Your task to perform on an android device: What's the news in Nepal? Image 0: 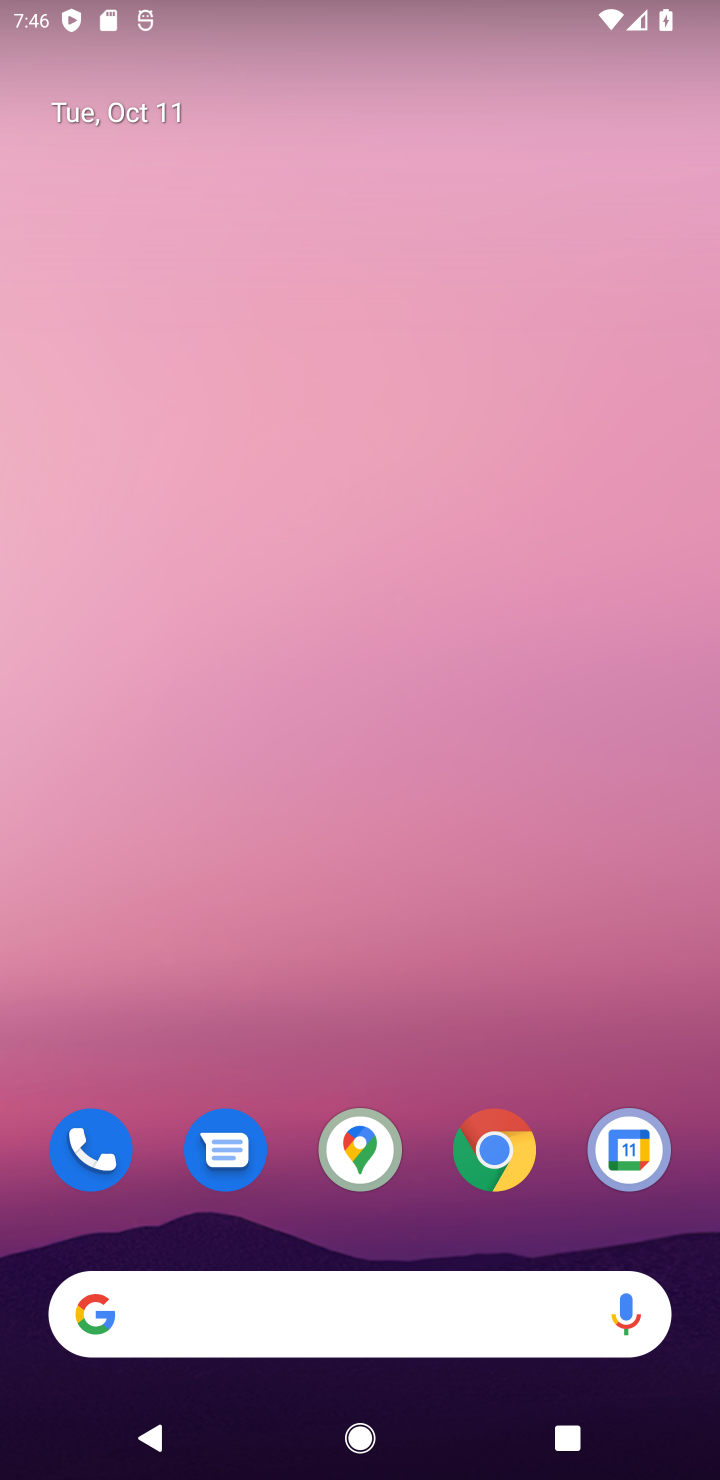
Step 0: click (484, 1165)
Your task to perform on an android device: What's the news in Nepal? Image 1: 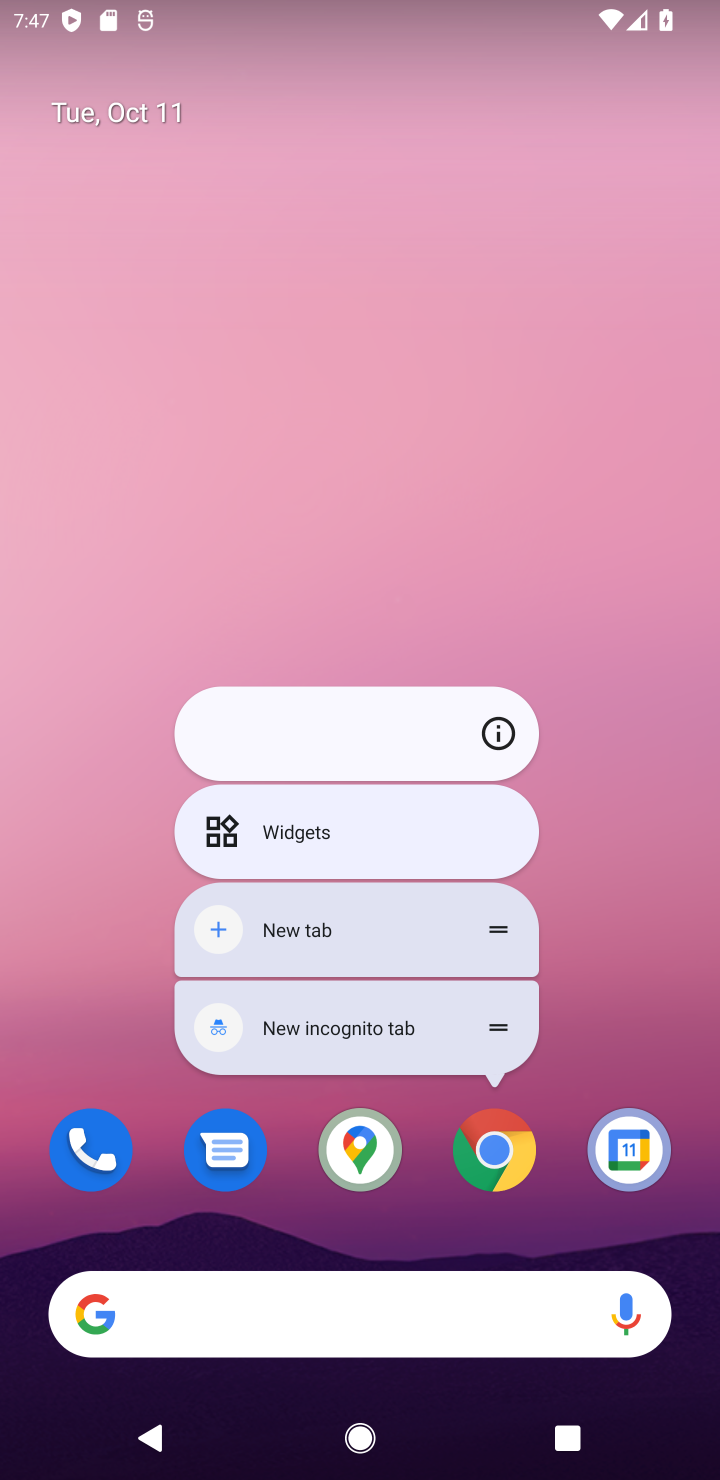
Step 1: click (495, 1149)
Your task to perform on an android device: What's the news in Nepal? Image 2: 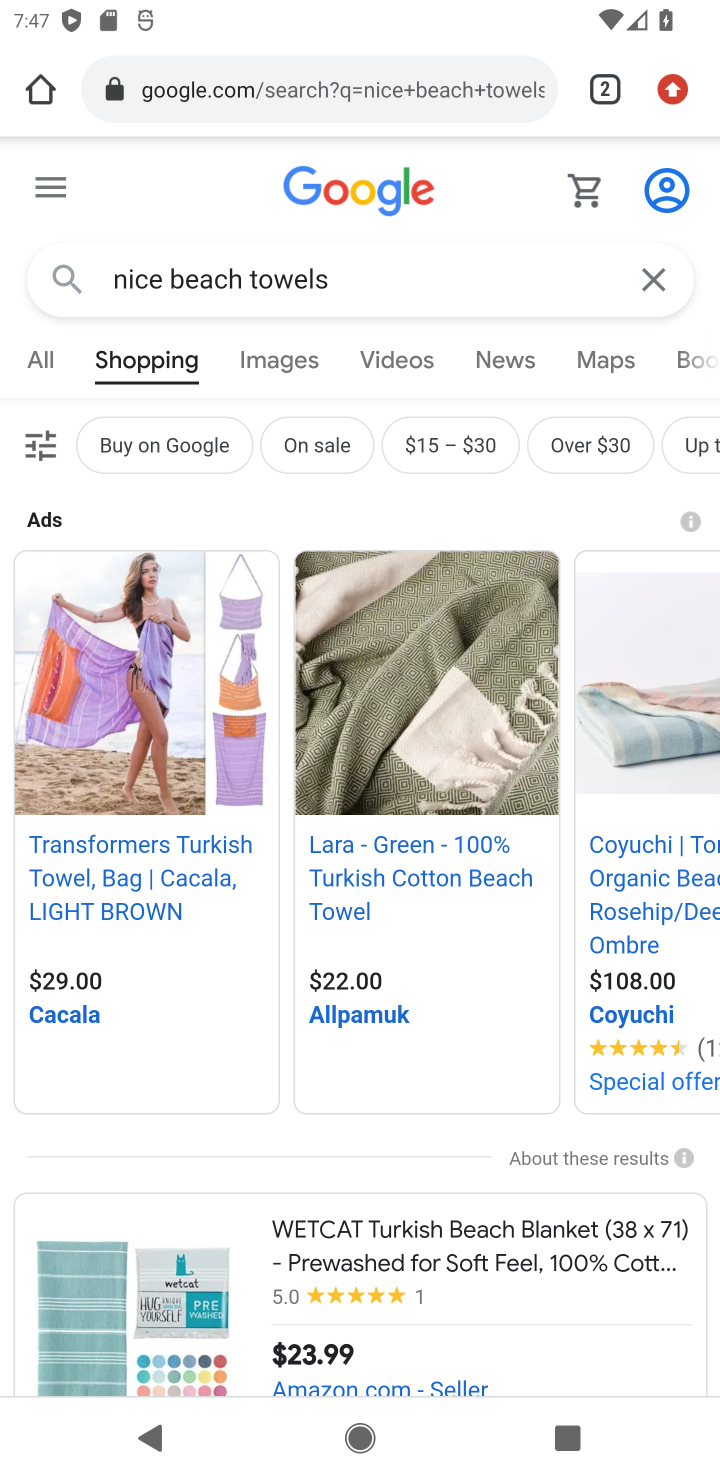
Step 2: click (233, 96)
Your task to perform on an android device: What's the news in Nepal? Image 3: 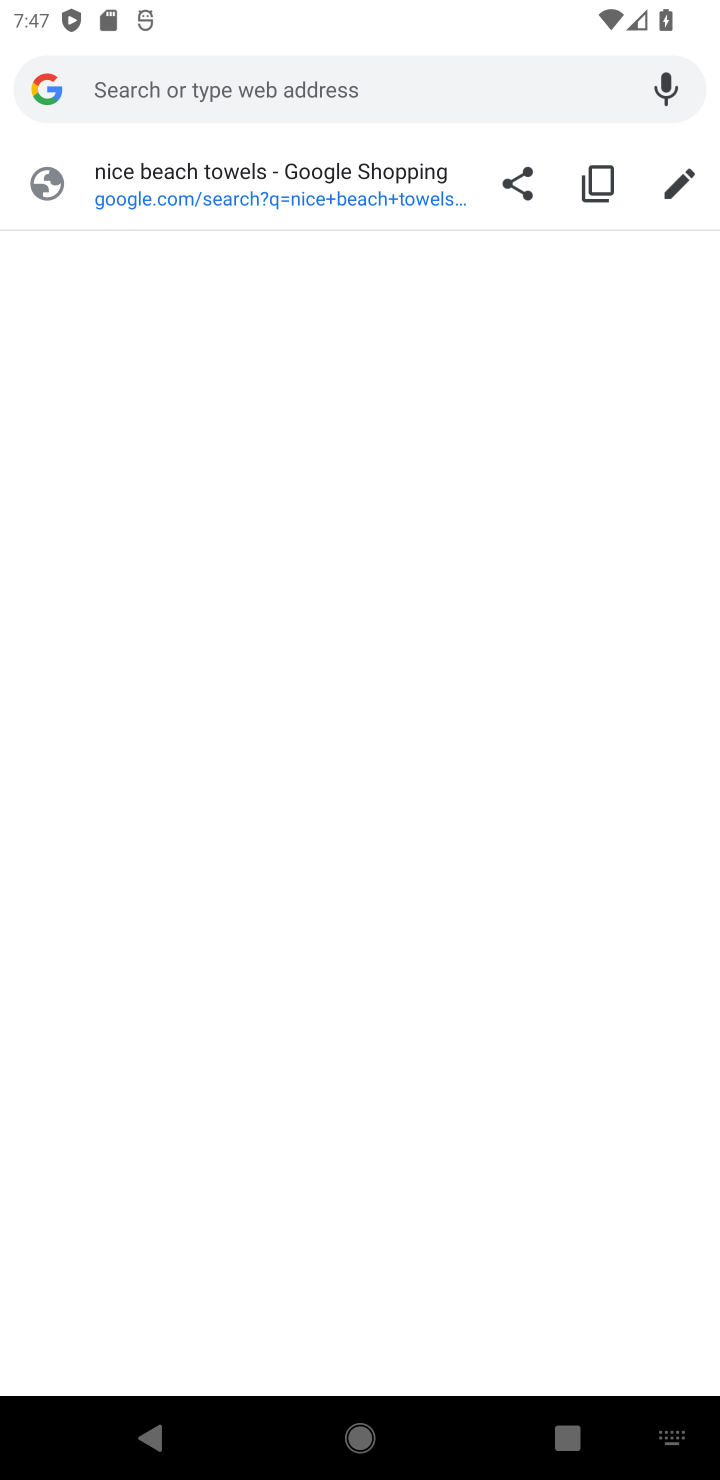
Step 3: type "nepal"
Your task to perform on an android device: What's the news in Nepal? Image 4: 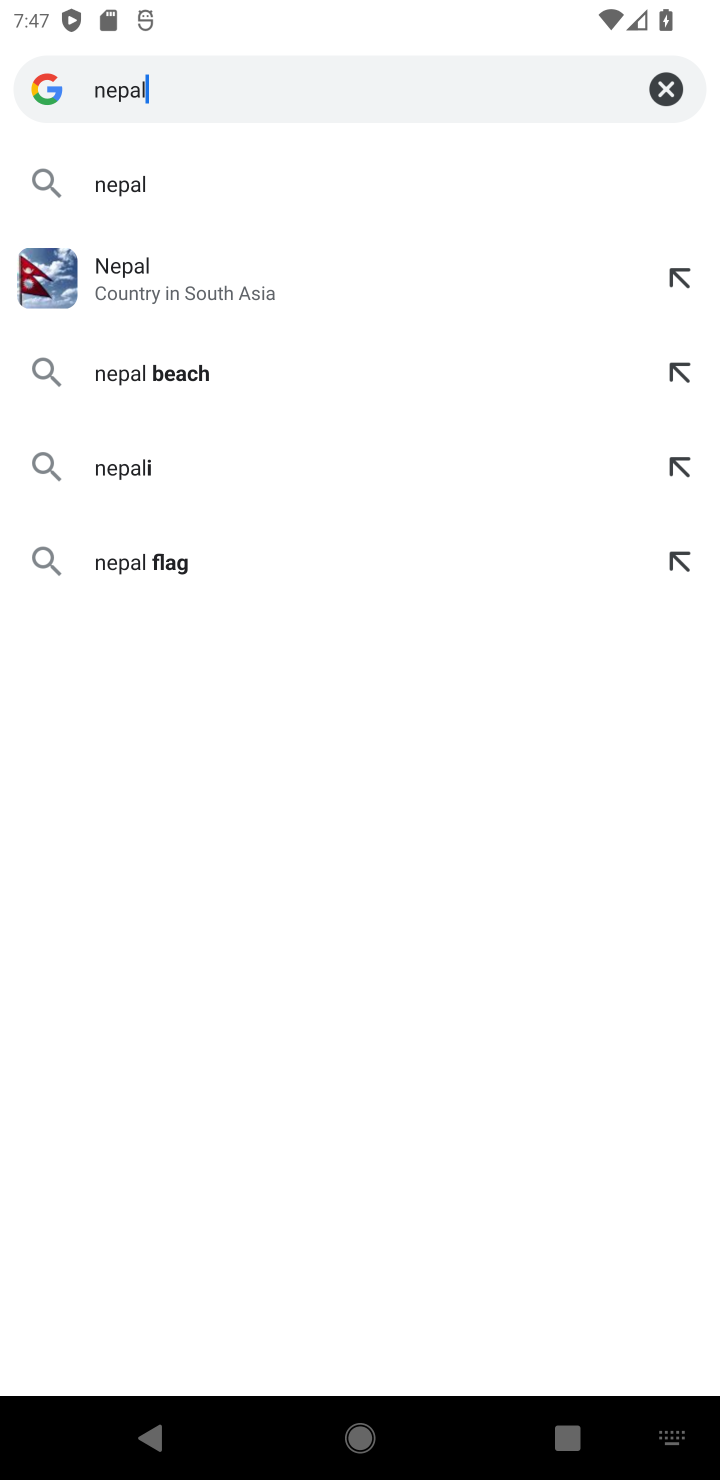
Step 4: click (127, 286)
Your task to perform on an android device: What's the news in Nepal? Image 5: 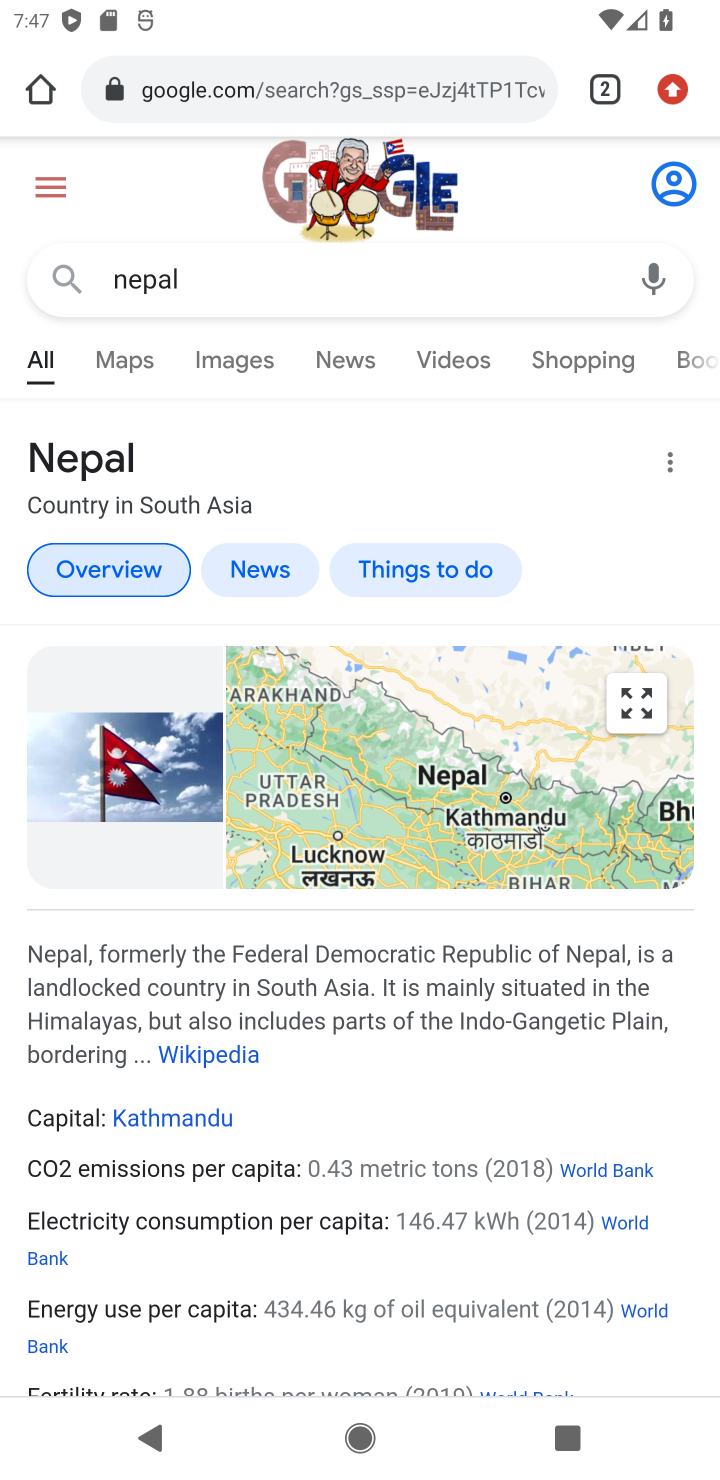
Step 5: click (343, 359)
Your task to perform on an android device: What's the news in Nepal? Image 6: 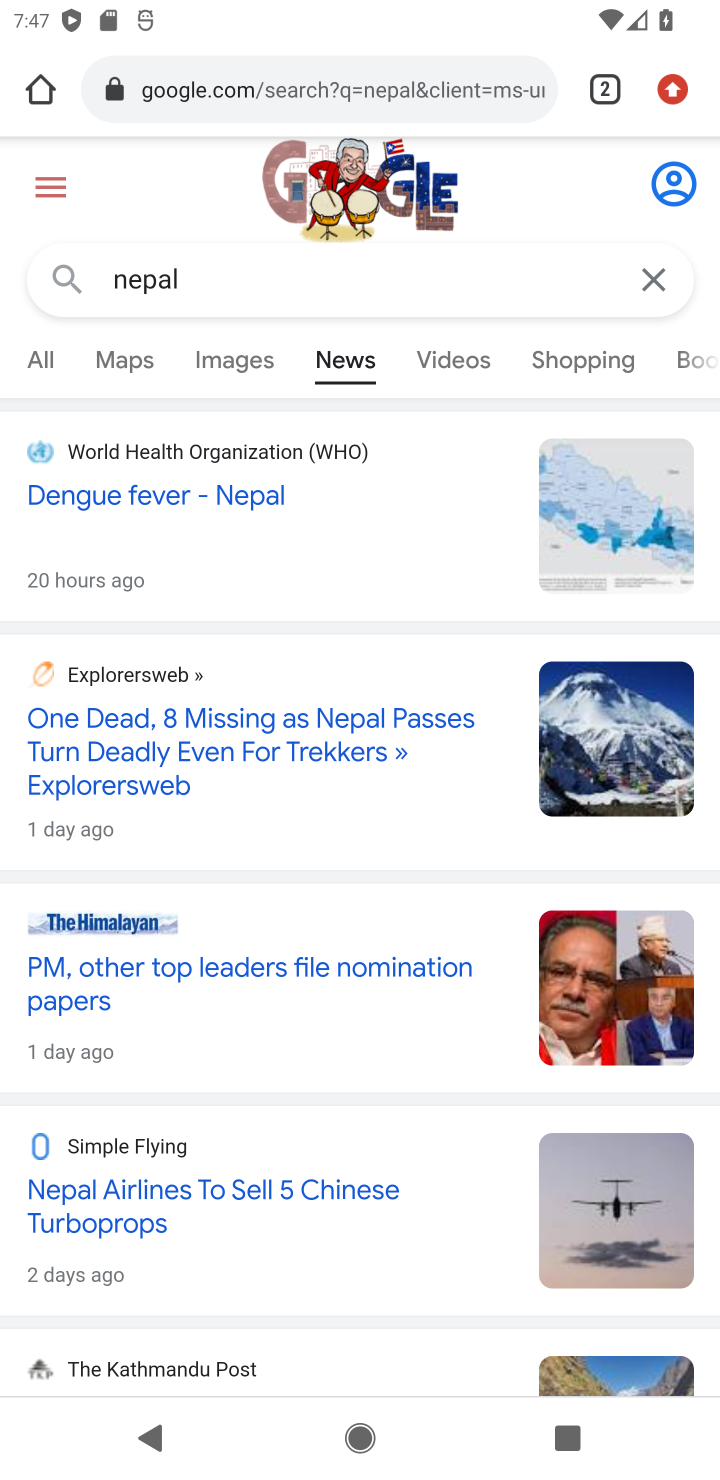
Step 6: click (127, 504)
Your task to perform on an android device: What's the news in Nepal? Image 7: 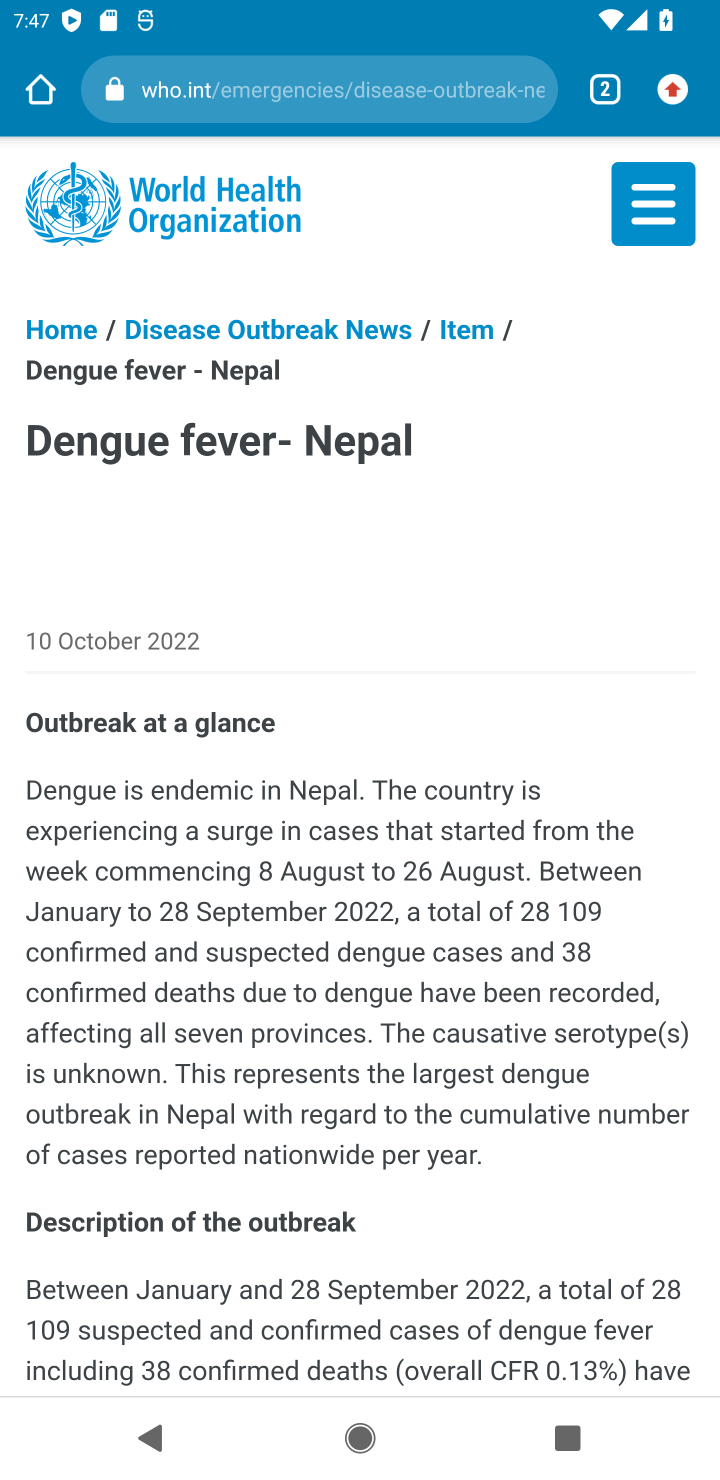
Step 7: task complete